Your task to perform on an android device: toggle airplane mode Image 0: 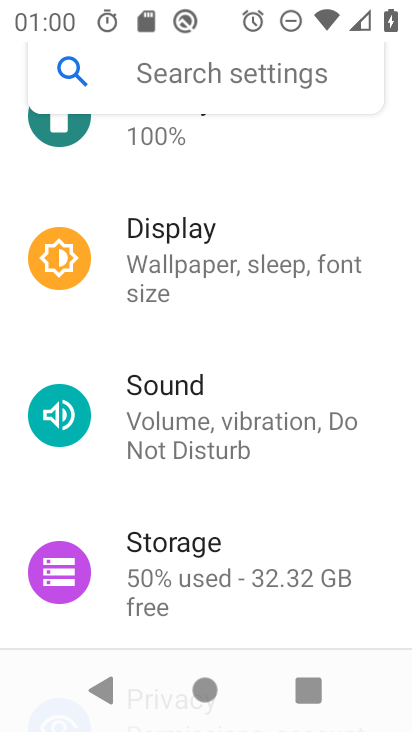
Step 0: drag from (237, 378) to (238, 617)
Your task to perform on an android device: toggle airplane mode Image 1: 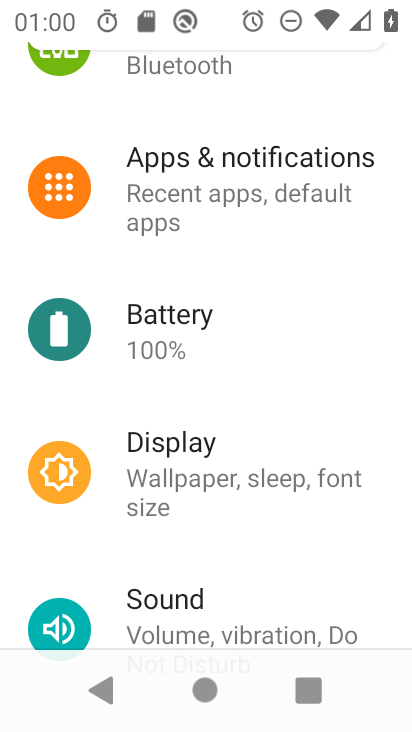
Step 1: drag from (205, 229) to (253, 627)
Your task to perform on an android device: toggle airplane mode Image 2: 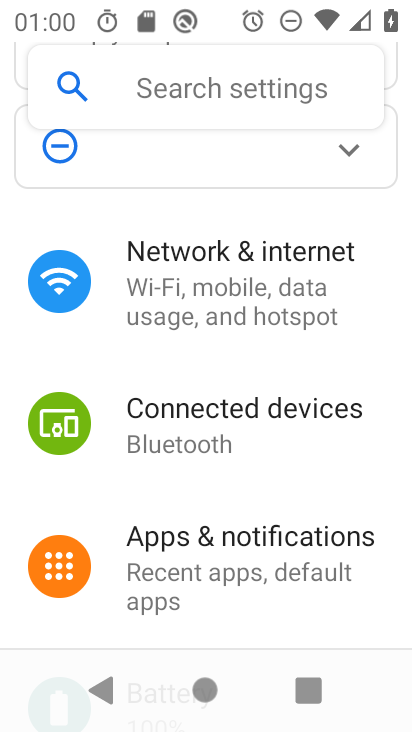
Step 2: click (192, 289)
Your task to perform on an android device: toggle airplane mode Image 3: 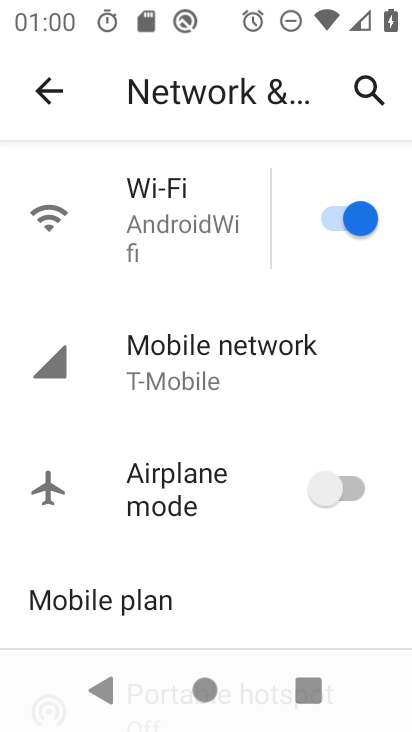
Step 3: click (327, 502)
Your task to perform on an android device: toggle airplane mode Image 4: 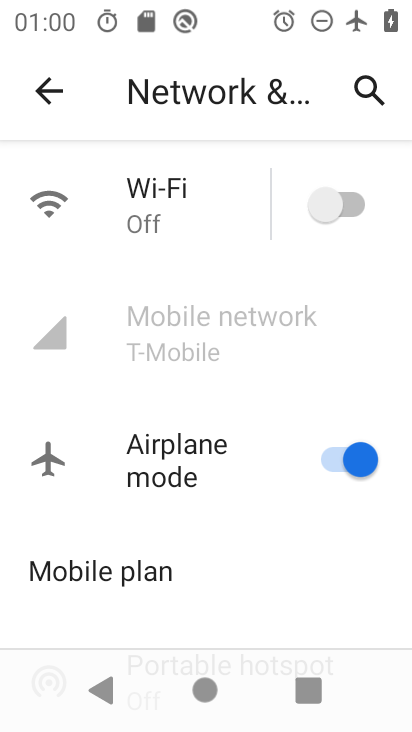
Step 4: task complete